Your task to perform on an android device: Open maps Image 0: 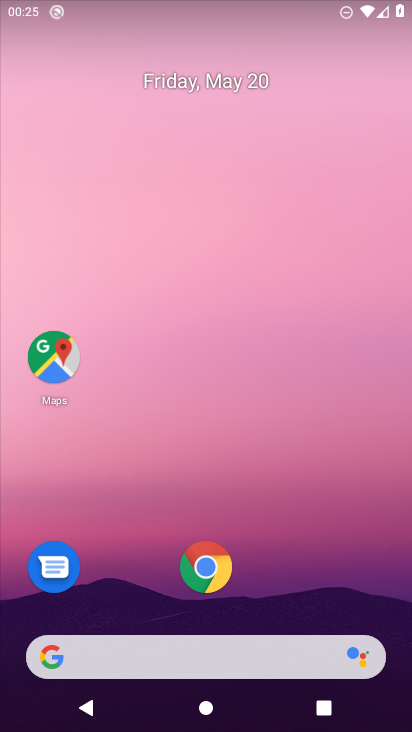
Step 0: drag from (257, 610) to (330, 168)
Your task to perform on an android device: Open maps Image 1: 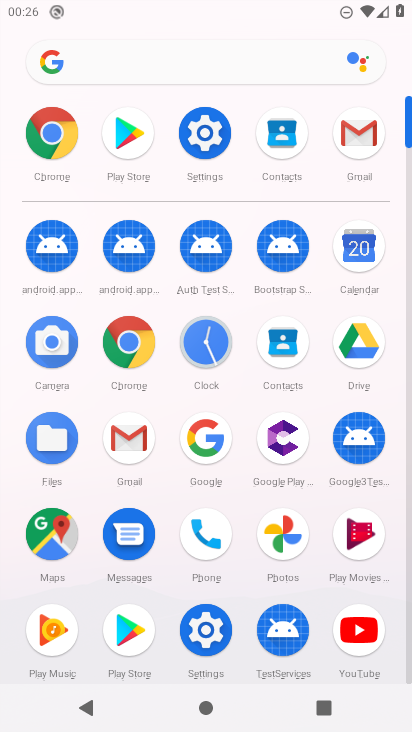
Step 1: click (49, 533)
Your task to perform on an android device: Open maps Image 2: 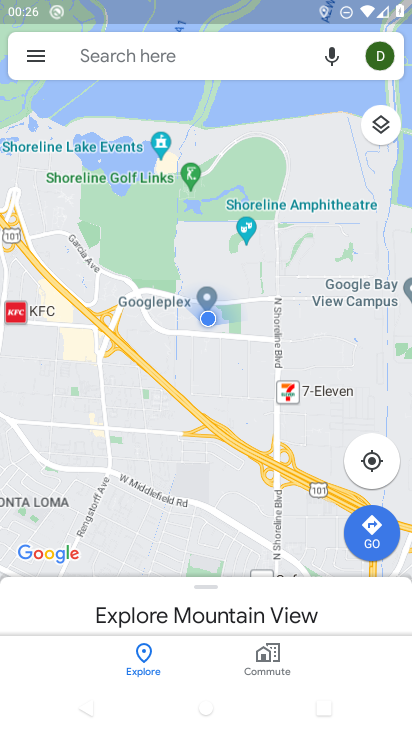
Step 2: task complete